Your task to perform on an android device: turn notification dots off Image 0: 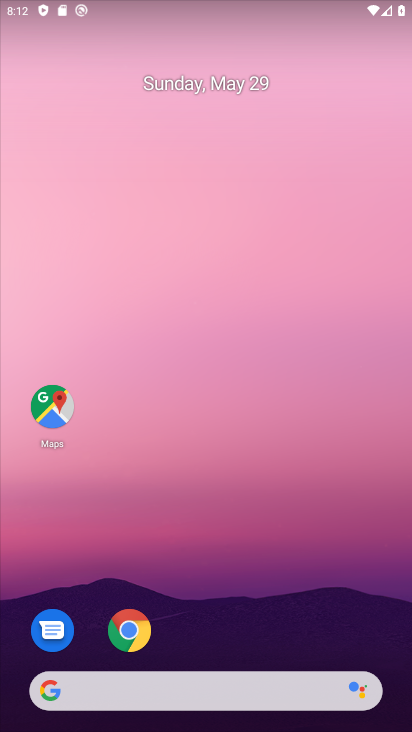
Step 0: drag from (397, 567) to (375, 135)
Your task to perform on an android device: turn notification dots off Image 1: 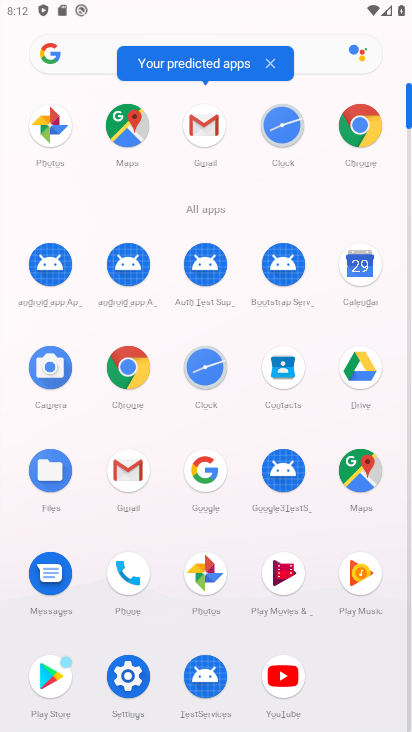
Step 1: click (133, 673)
Your task to perform on an android device: turn notification dots off Image 2: 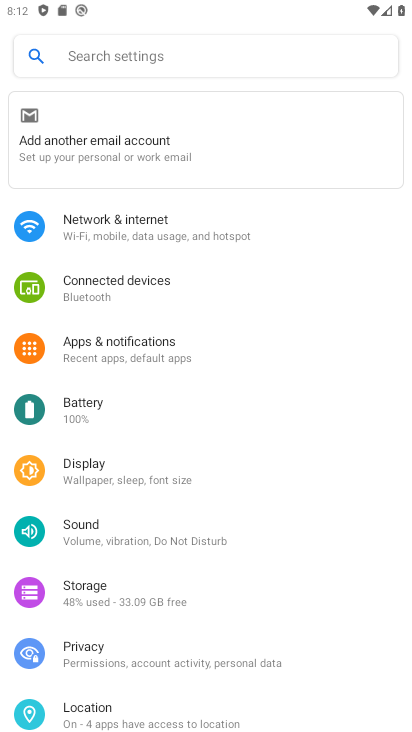
Step 2: click (107, 340)
Your task to perform on an android device: turn notification dots off Image 3: 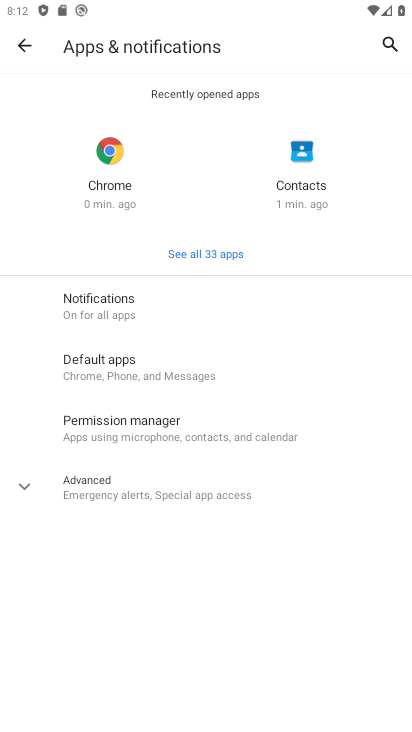
Step 3: click (98, 313)
Your task to perform on an android device: turn notification dots off Image 4: 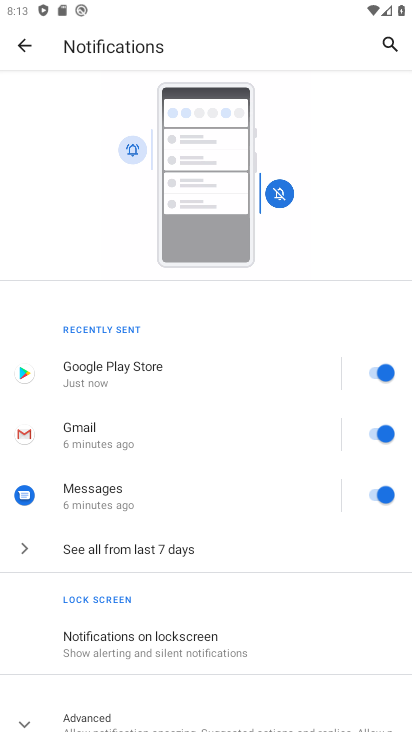
Step 4: drag from (283, 627) to (296, 327)
Your task to perform on an android device: turn notification dots off Image 5: 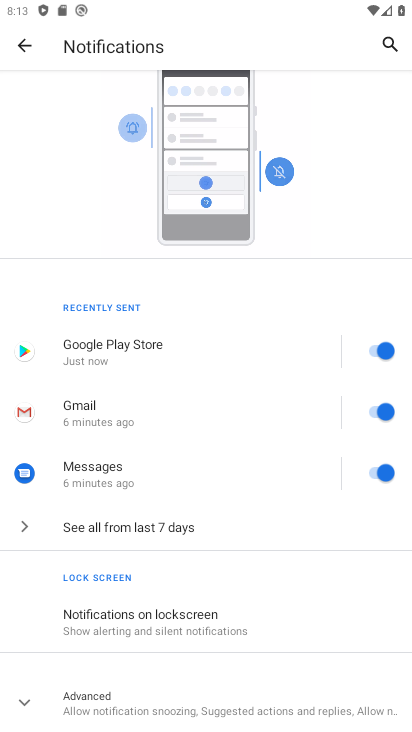
Step 5: click (23, 702)
Your task to perform on an android device: turn notification dots off Image 6: 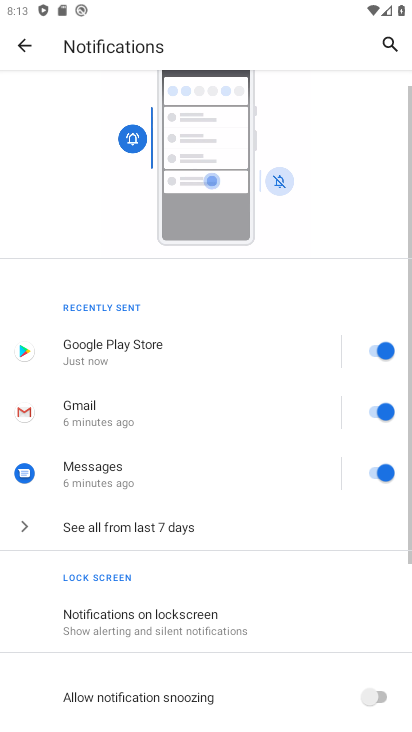
Step 6: drag from (265, 705) to (297, 352)
Your task to perform on an android device: turn notification dots off Image 7: 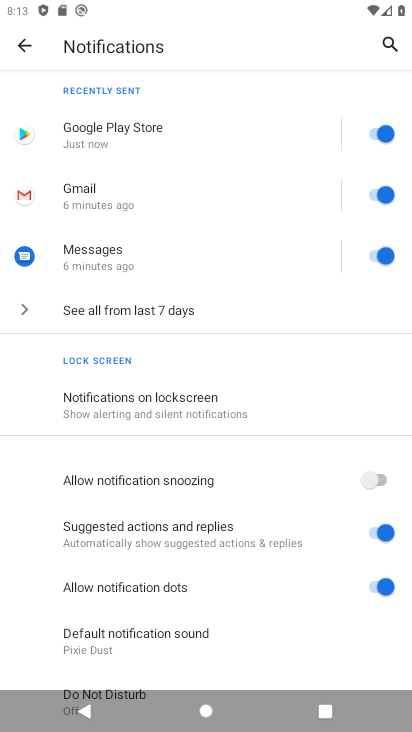
Step 7: drag from (294, 655) to (325, 341)
Your task to perform on an android device: turn notification dots off Image 8: 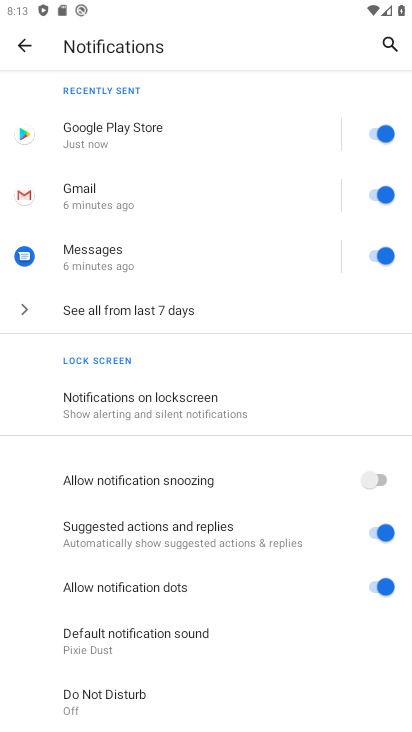
Step 8: click (378, 587)
Your task to perform on an android device: turn notification dots off Image 9: 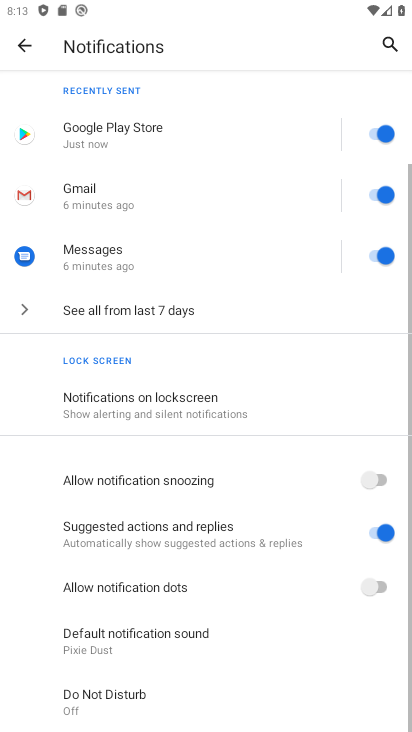
Step 9: task complete